Your task to perform on an android device: Go to Android settings Image 0: 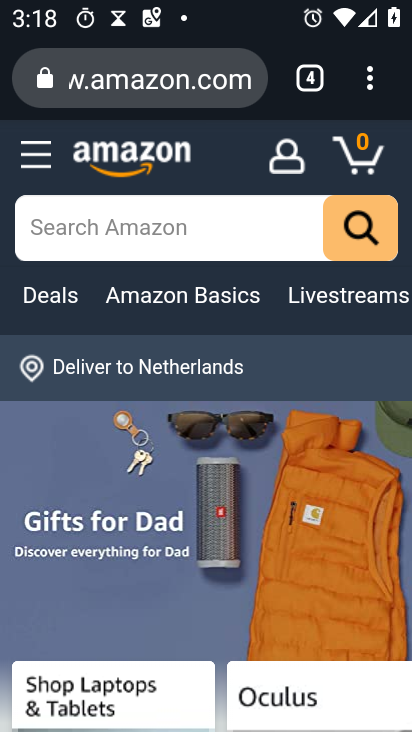
Step 0: press back button
Your task to perform on an android device: Go to Android settings Image 1: 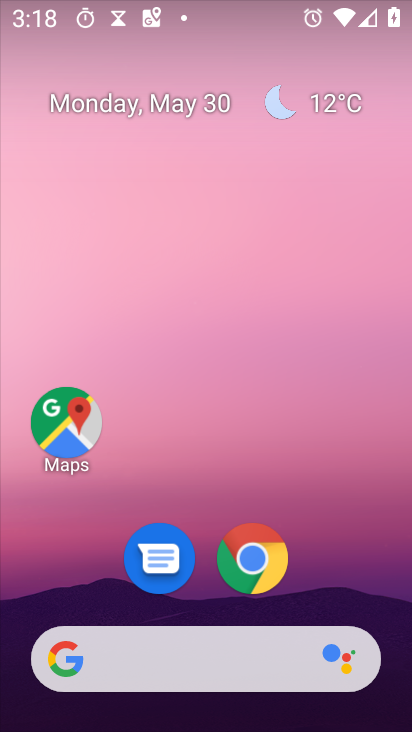
Step 1: drag from (179, 497) to (254, 84)
Your task to perform on an android device: Go to Android settings Image 2: 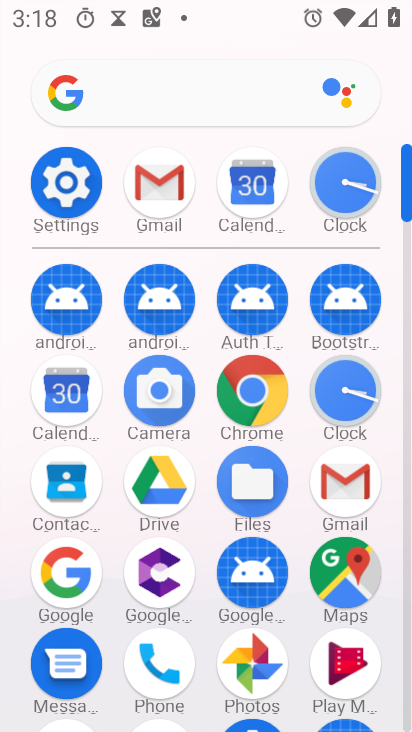
Step 2: click (56, 178)
Your task to perform on an android device: Go to Android settings Image 3: 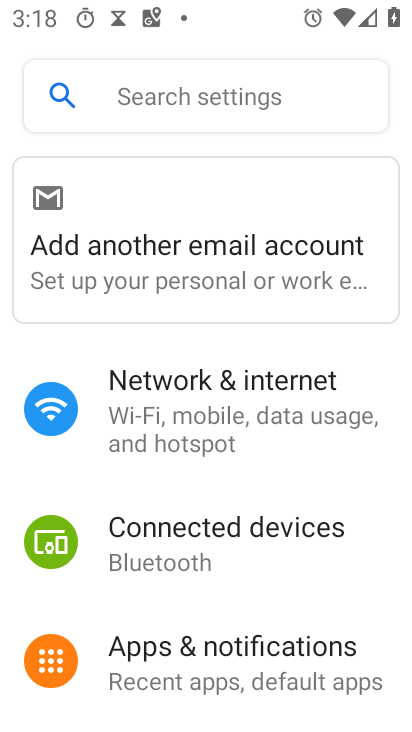
Step 3: drag from (176, 639) to (263, 198)
Your task to perform on an android device: Go to Android settings Image 4: 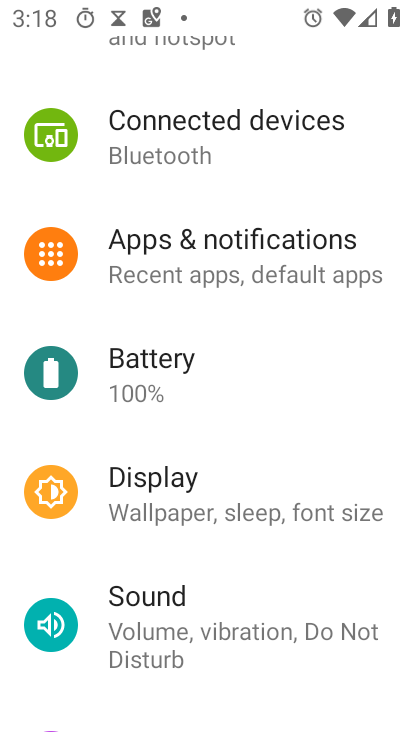
Step 4: drag from (158, 691) to (302, 90)
Your task to perform on an android device: Go to Android settings Image 5: 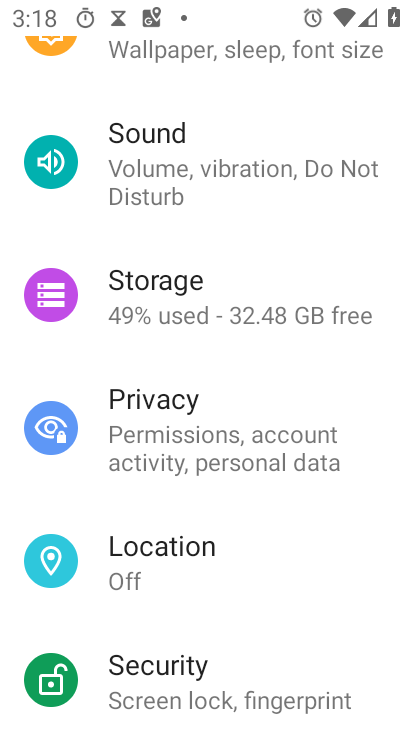
Step 5: drag from (188, 633) to (269, 54)
Your task to perform on an android device: Go to Android settings Image 6: 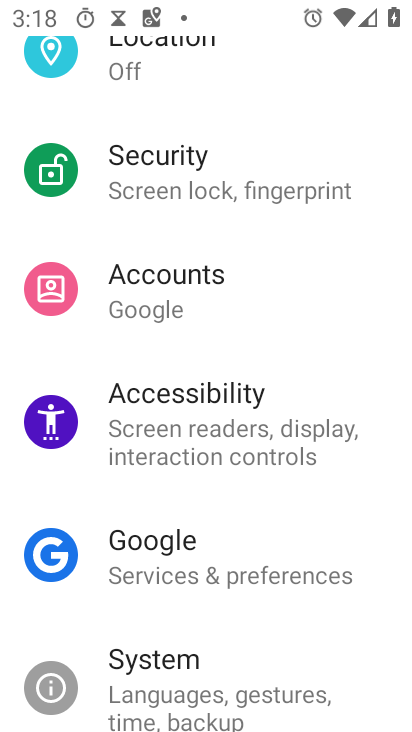
Step 6: drag from (181, 637) to (360, 43)
Your task to perform on an android device: Go to Android settings Image 7: 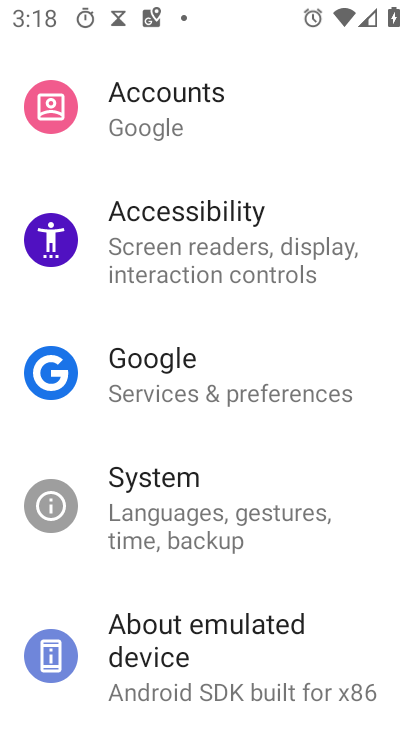
Step 7: drag from (180, 616) to (284, 47)
Your task to perform on an android device: Go to Android settings Image 8: 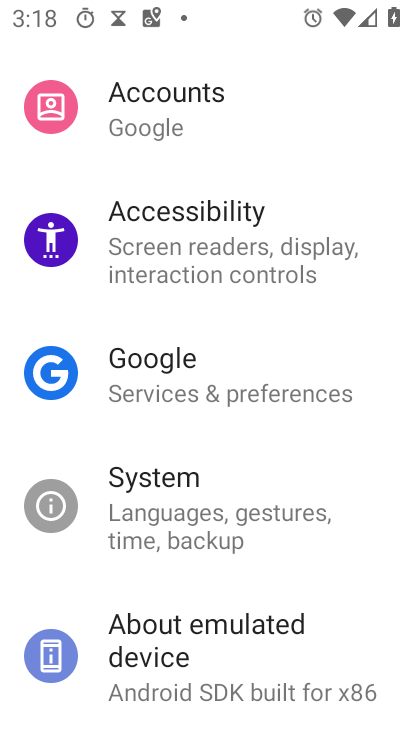
Step 8: click (170, 627)
Your task to perform on an android device: Go to Android settings Image 9: 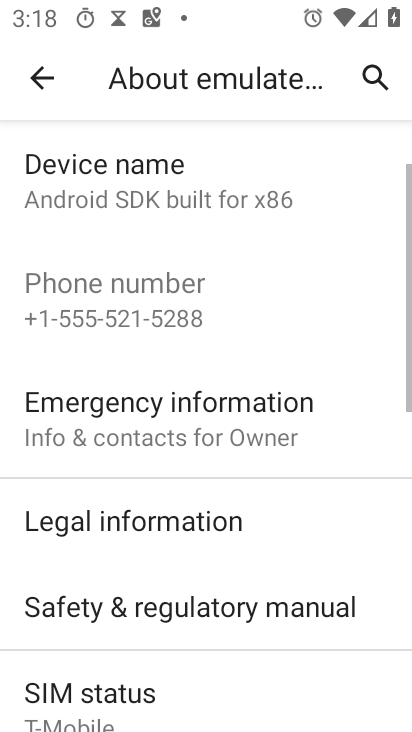
Step 9: drag from (148, 665) to (289, 141)
Your task to perform on an android device: Go to Android settings Image 10: 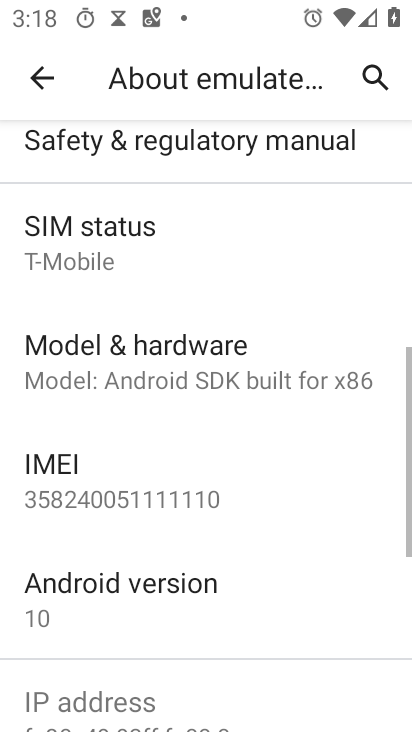
Step 10: click (97, 597)
Your task to perform on an android device: Go to Android settings Image 11: 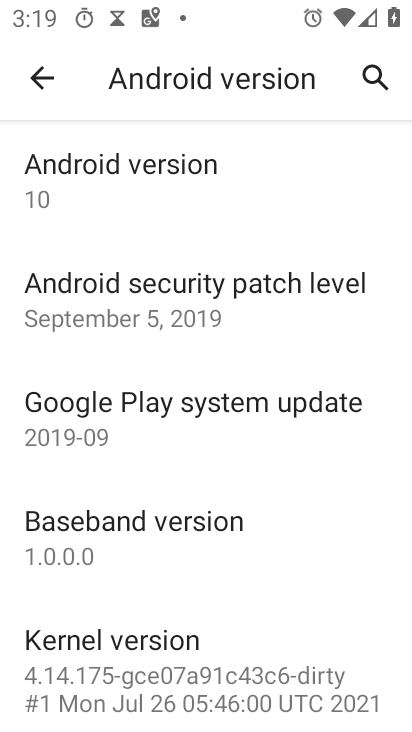
Step 11: task complete